Your task to perform on an android device: check data usage Image 0: 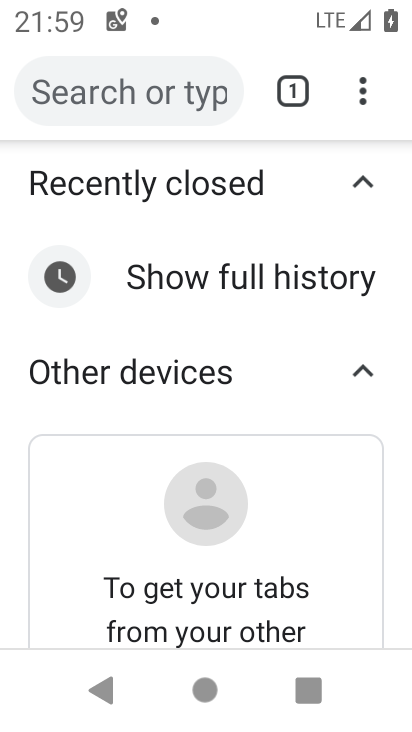
Step 0: press home button
Your task to perform on an android device: check data usage Image 1: 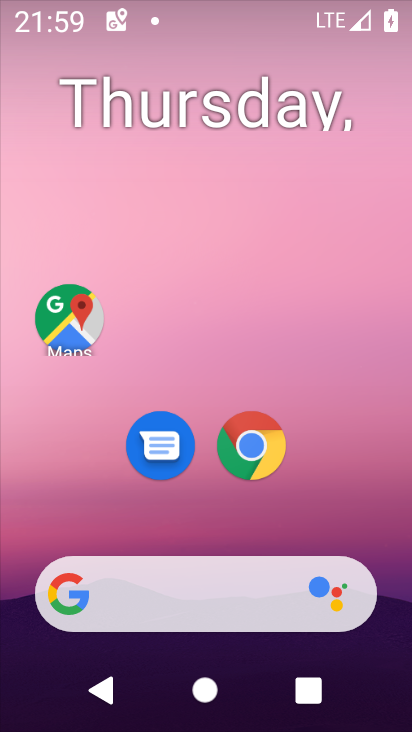
Step 1: drag from (194, 524) to (272, 101)
Your task to perform on an android device: check data usage Image 2: 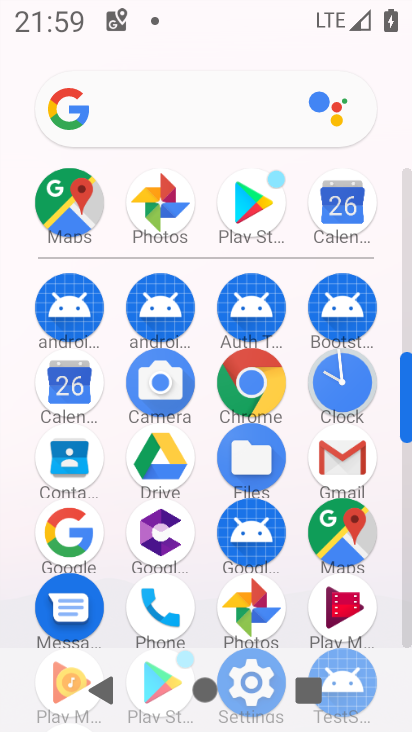
Step 2: drag from (203, 281) to (208, 164)
Your task to perform on an android device: check data usage Image 3: 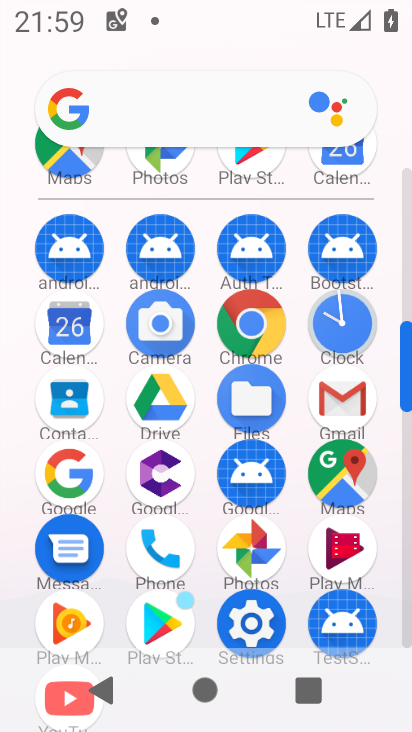
Step 3: click (253, 615)
Your task to perform on an android device: check data usage Image 4: 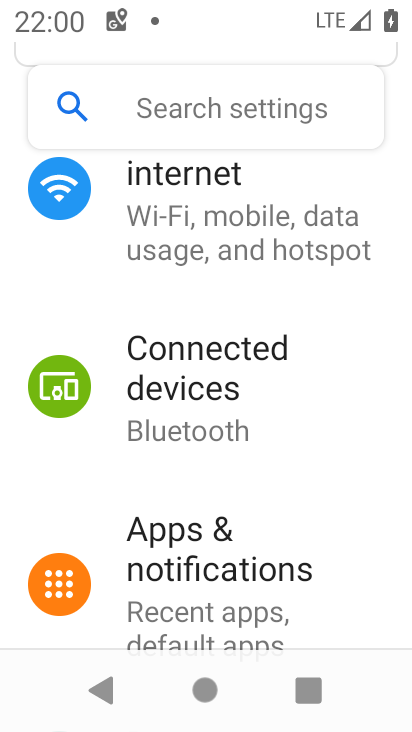
Step 4: click (262, 248)
Your task to perform on an android device: check data usage Image 5: 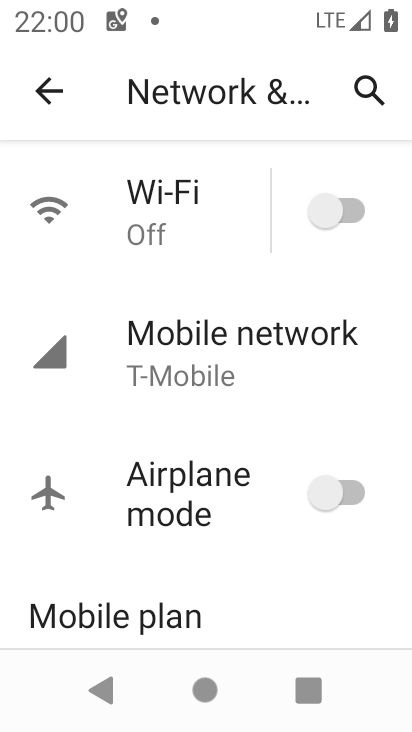
Step 5: click (195, 378)
Your task to perform on an android device: check data usage Image 6: 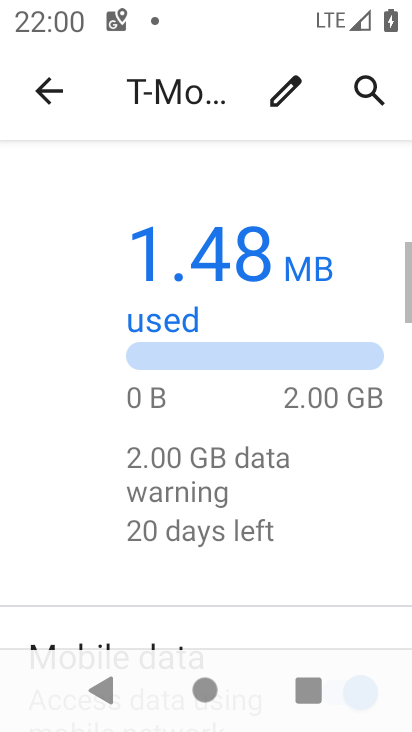
Step 6: drag from (187, 496) to (235, 228)
Your task to perform on an android device: check data usage Image 7: 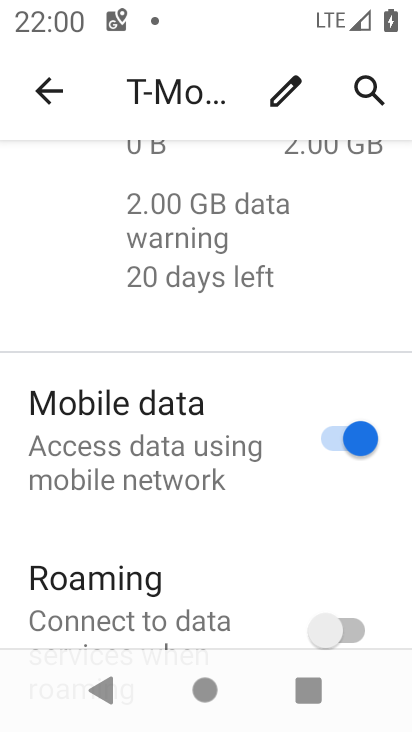
Step 7: click (237, 230)
Your task to perform on an android device: check data usage Image 8: 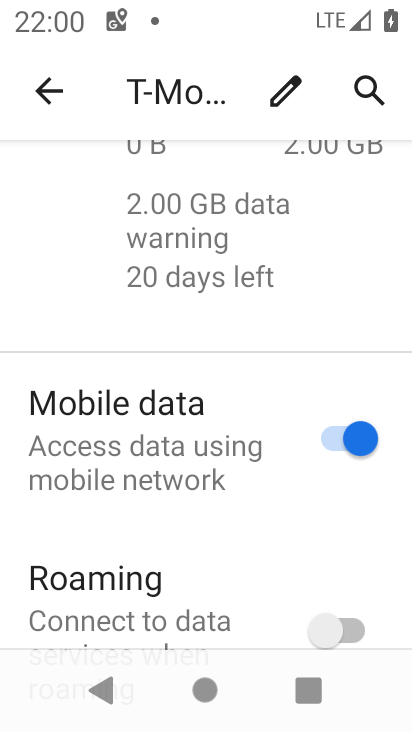
Step 8: click (239, 180)
Your task to perform on an android device: check data usage Image 9: 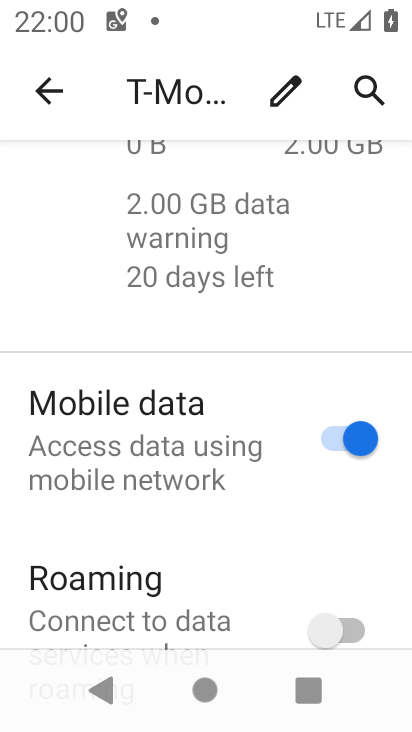
Step 9: drag from (198, 454) to (245, 168)
Your task to perform on an android device: check data usage Image 10: 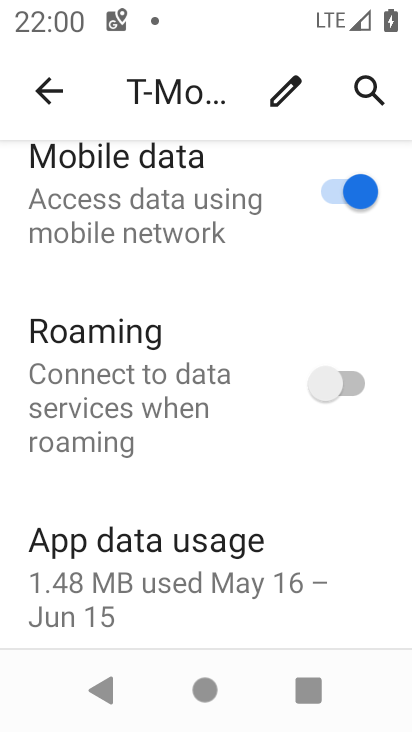
Step 10: click (165, 575)
Your task to perform on an android device: check data usage Image 11: 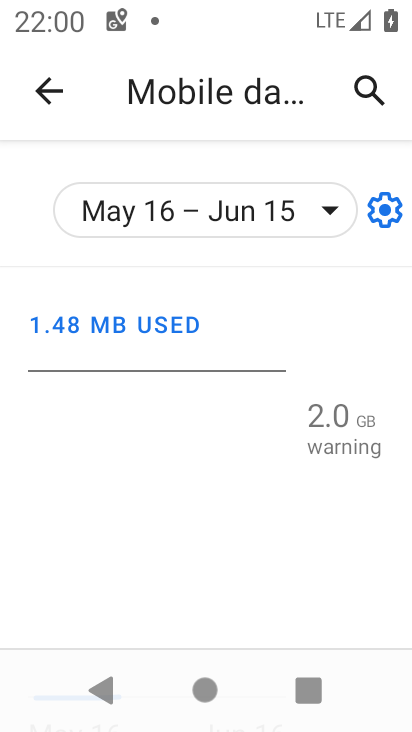
Step 11: task complete